Your task to perform on an android device: check out phone information Image 0: 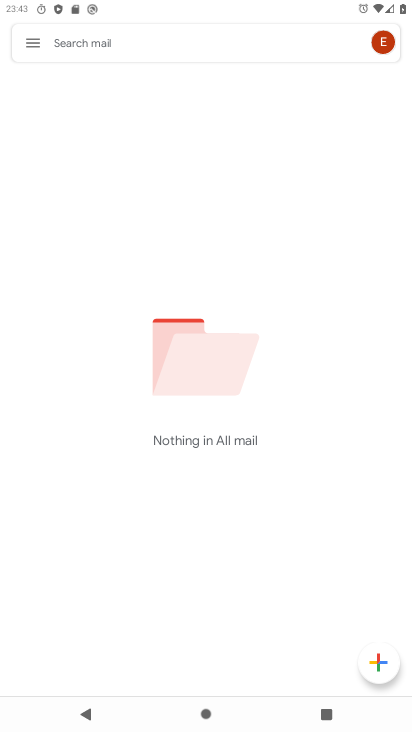
Step 0: press home button
Your task to perform on an android device: check out phone information Image 1: 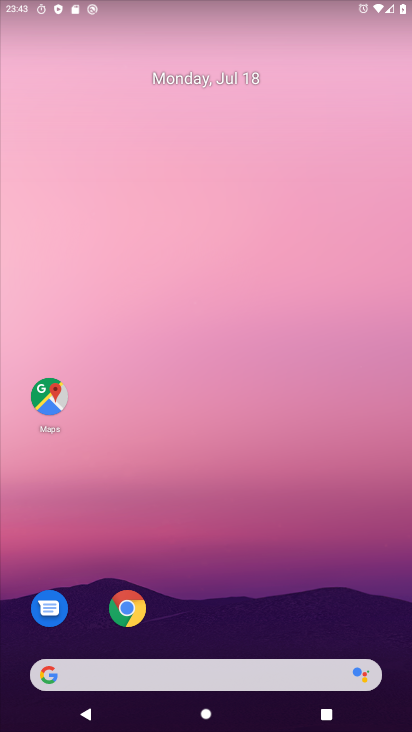
Step 1: drag from (189, 669) to (270, 63)
Your task to perform on an android device: check out phone information Image 2: 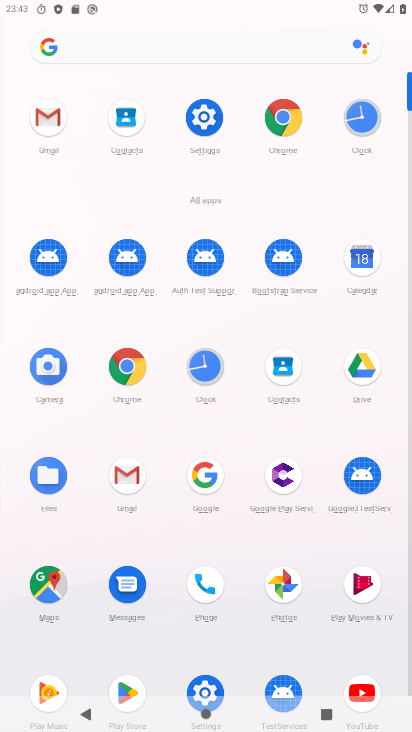
Step 2: click (205, 118)
Your task to perform on an android device: check out phone information Image 3: 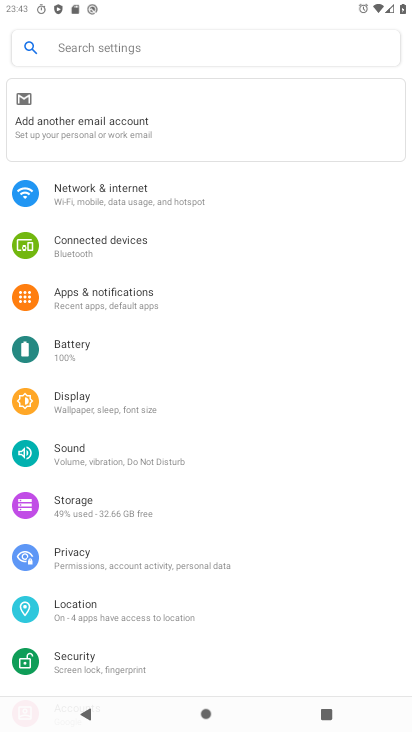
Step 3: drag from (107, 483) to (136, 371)
Your task to perform on an android device: check out phone information Image 4: 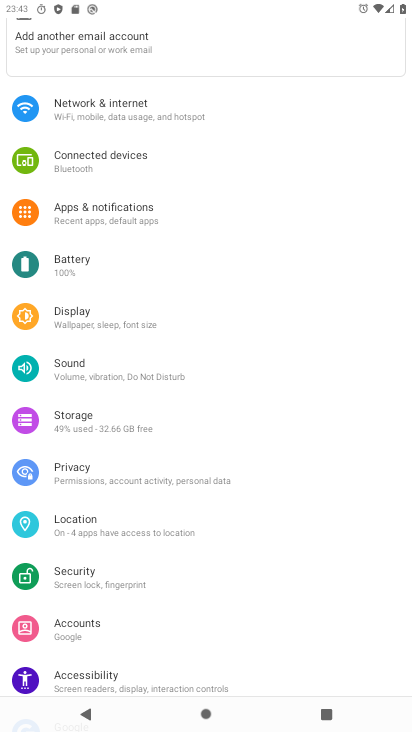
Step 4: drag from (87, 510) to (130, 402)
Your task to perform on an android device: check out phone information Image 5: 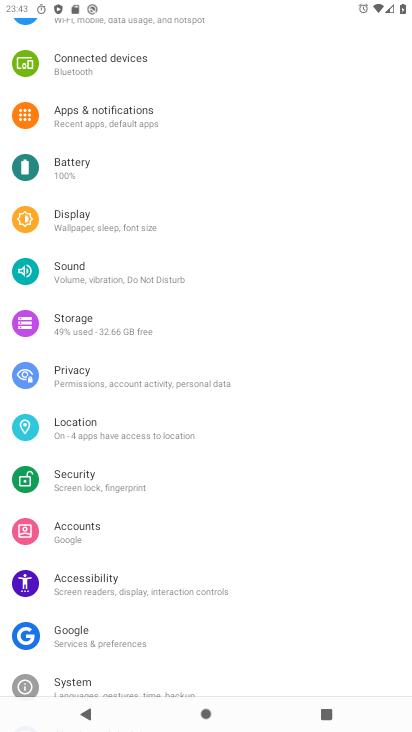
Step 5: drag from (96, 535) to (118, 415)
Your task to perform on an android device: check out phone information Image 6: 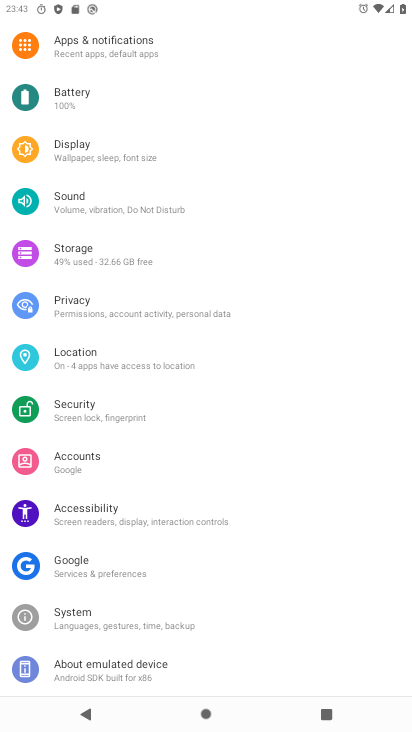
Step 6: drag from (95, 568) to (142, 419)
Your task to perform on an android device: check out phone information Image 7: 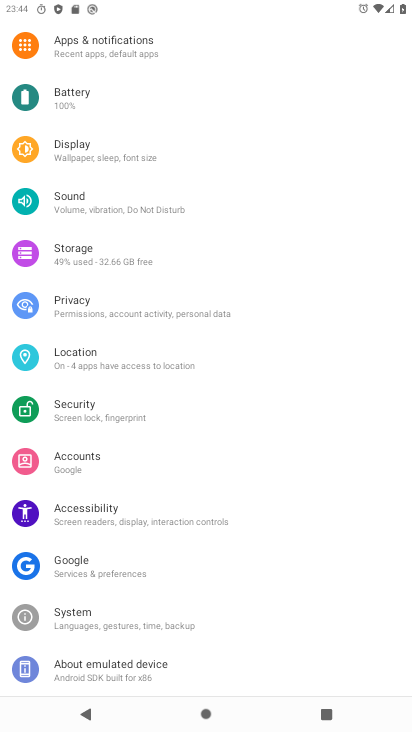
Step 7: click (143, 673)
Your task to perform on an android device: check out phone information Image 8: 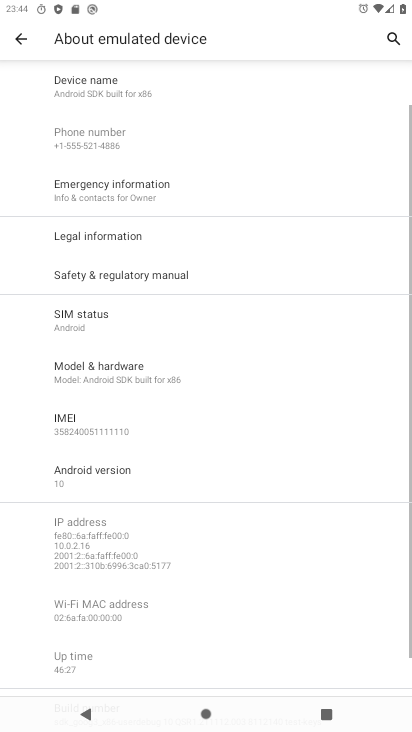
Step 8: task complete